Your task to perform on an android device: install app "Adobe Acrobat Reader" Image 0: 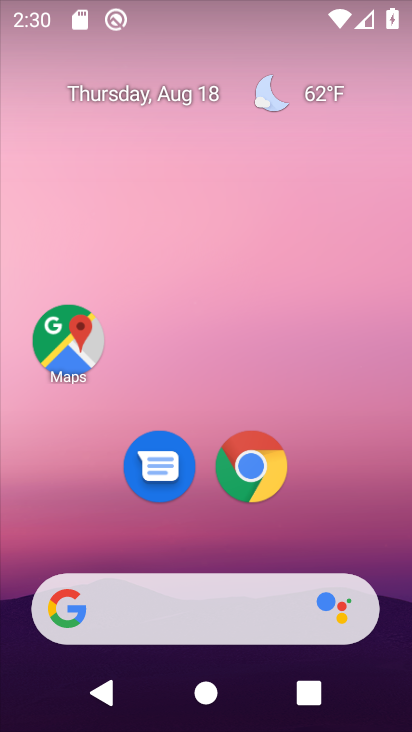
Step 0: drag from (278, 573) to (145, 15)
Your task to perform on an android device: install app "Adobe Acrobat Reader" Image 1: 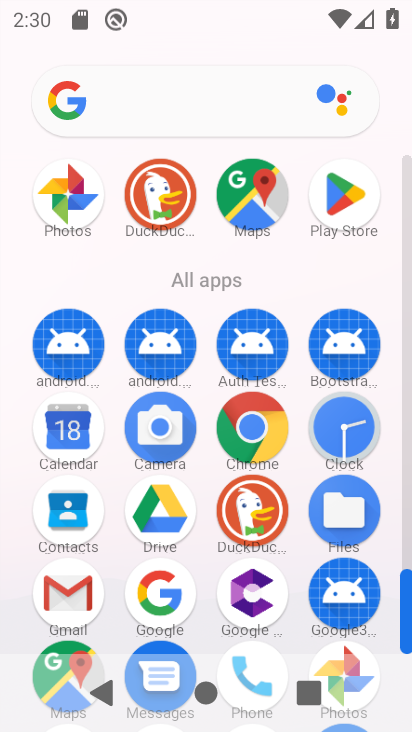
Step 1: click (337, 187)
Your task to perform on an android device: install app "Adobe Acrobat Reader" Image 2: 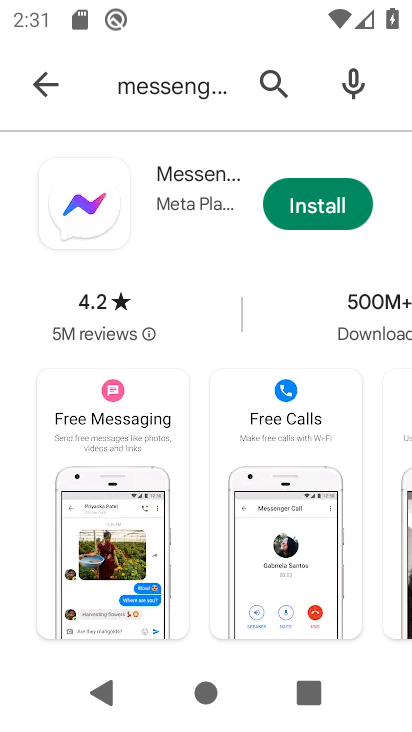
Step 2: click (270, 83)
Your task to perform on an android device: install app "Adobe Acrobat Reader" Image 3: 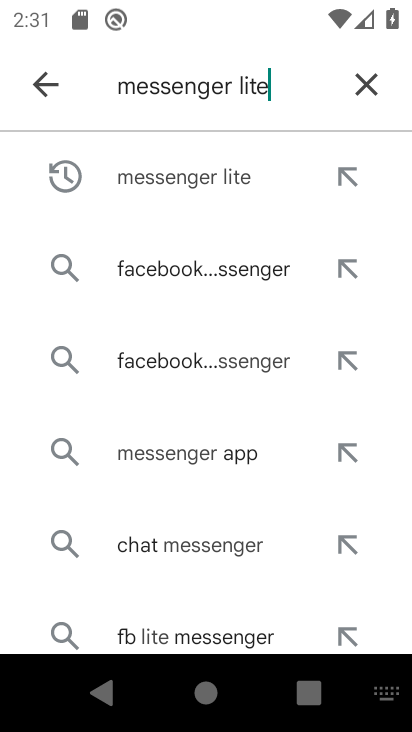
Step 3: click (376, 82)
Your task to perform on an android device: install app "Adobe Acrobat Reader" Image 4: 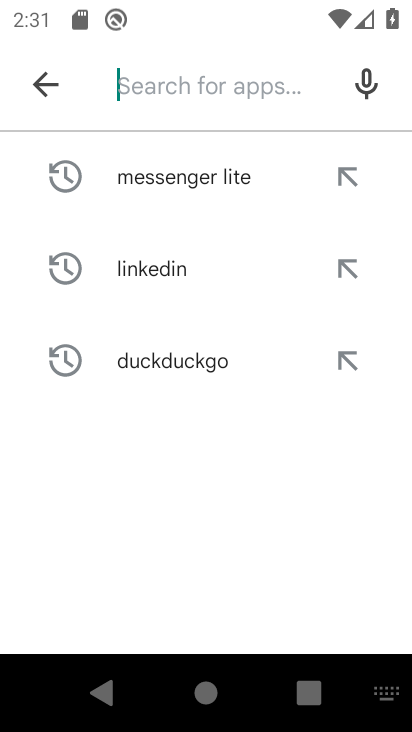
Step 4: type "Adobe Acrobat Reader"
Your task to perform on an android device: install app "Adobe Acrobat Reader" Image 5: 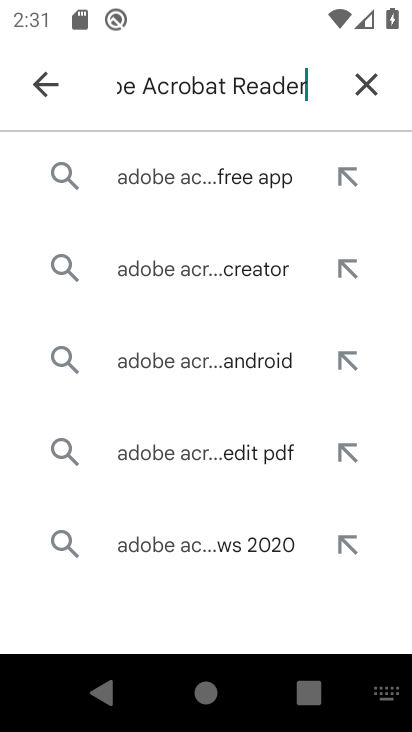
Step 5: click (153, 181)
Your task to perform on an android device: install app "Adobe Acrobat Reader" Image 6: 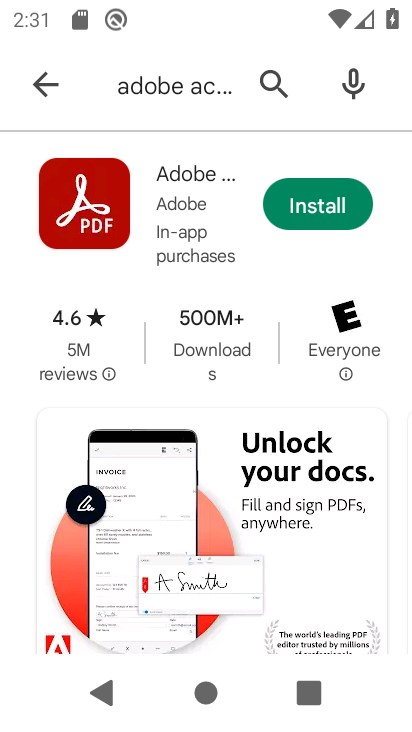
Step 6: click (292, 207)
Your task to perform on an android device: install app "Adobe Acrobat Reader" Image 7: 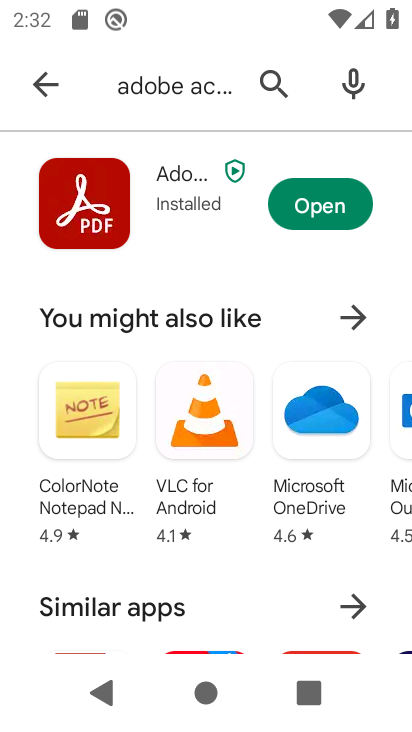
Step 7: task complete